Your task to perform on an android device: Open Reddit.com Image 0: 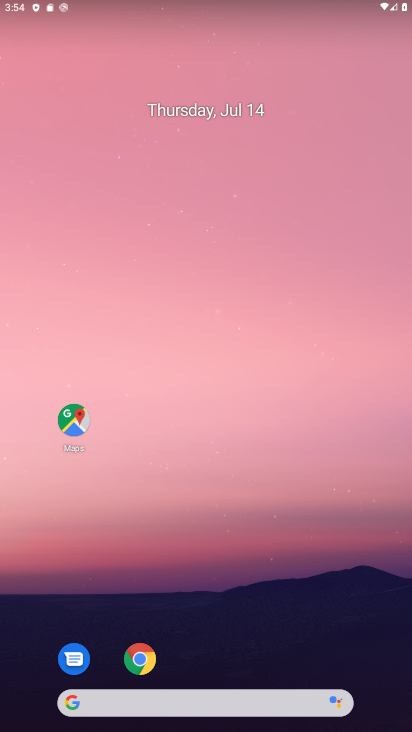
Step 0: press home button
Your task to perform on an android device: Open Reddit.com Image 1: 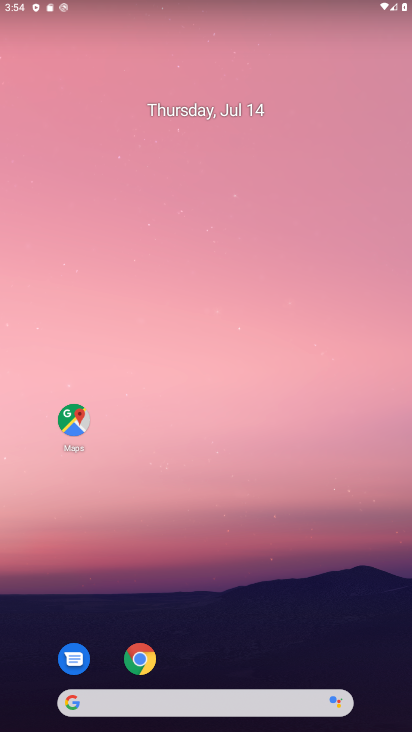
Step 1: drag from (244, 710) to (140, 203)
Your task to perform on an android device: Open Reddit.com Image 2: 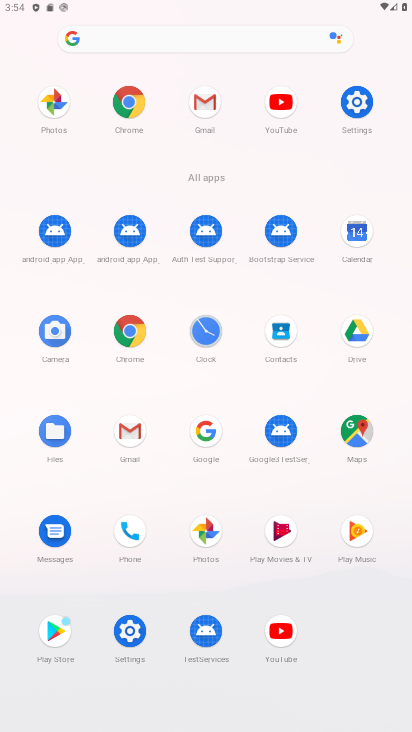
Step 2: click (124, 105)
Your task to perform on an android device: Open Reddit.com Image 3: 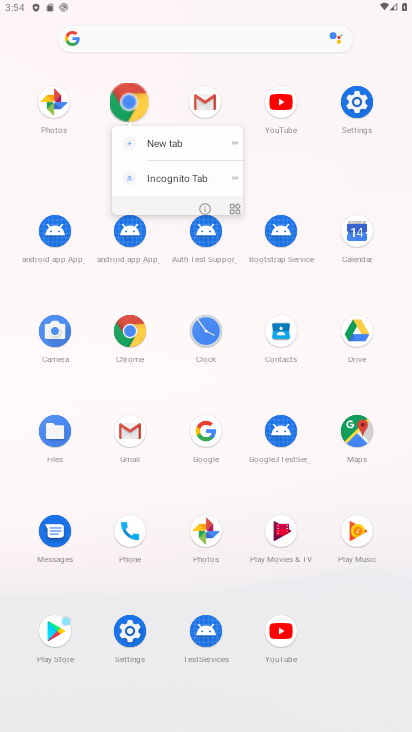
Step 3: click (129, 108)
Your task to perform on an android device: Open Reddit.com Image 4: 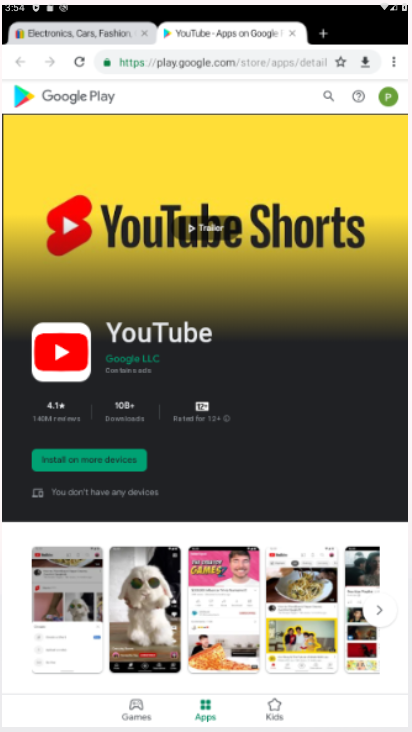
Step 4: click (130, 111)
Your task to perform on an android device: Open Reddit.com Image 5: 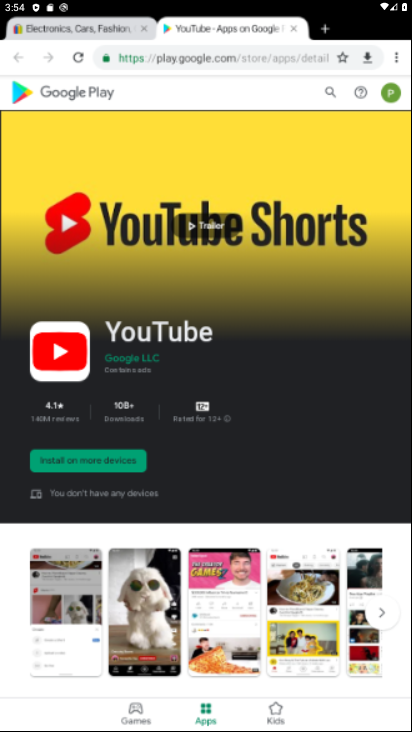
Step 5: click (130, 111)
Your task to perform on an android device: Open Reddit.com Image 6: 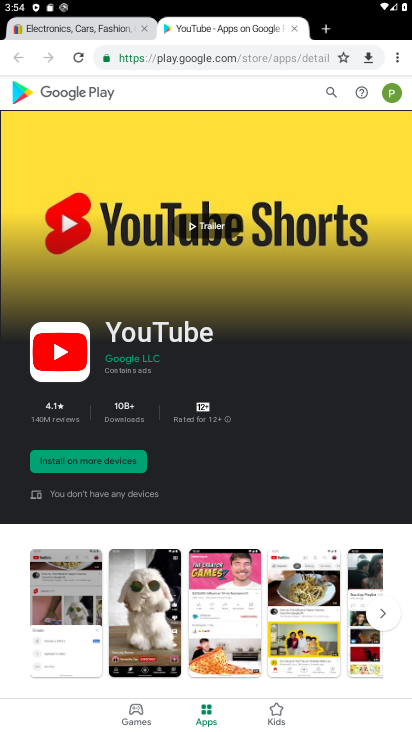
Step 6: drag from (396, 49) to (269, 54)
Your task to perform on an android device: Open Reddit.com Image 7: 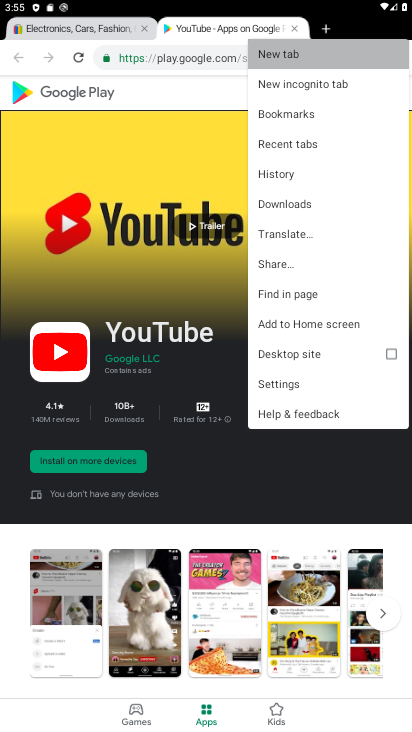
Step 7: click (269, 54)
Your task to perform on an android device: Open Reddit.com Image 8: 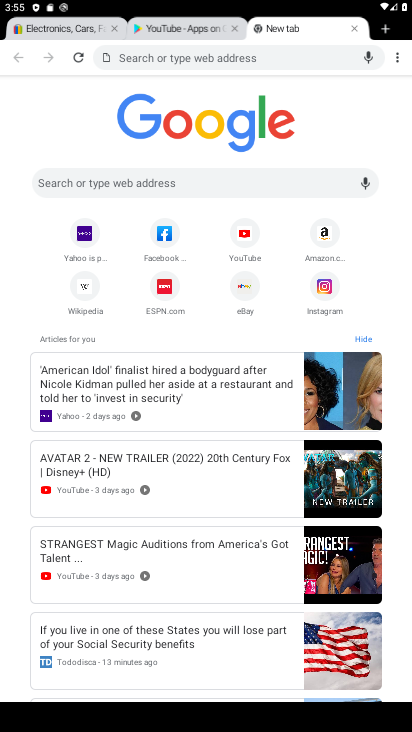
Step 8: click (53, 183)
Your task to perform on an android device: Open Reddit.com Image 9: 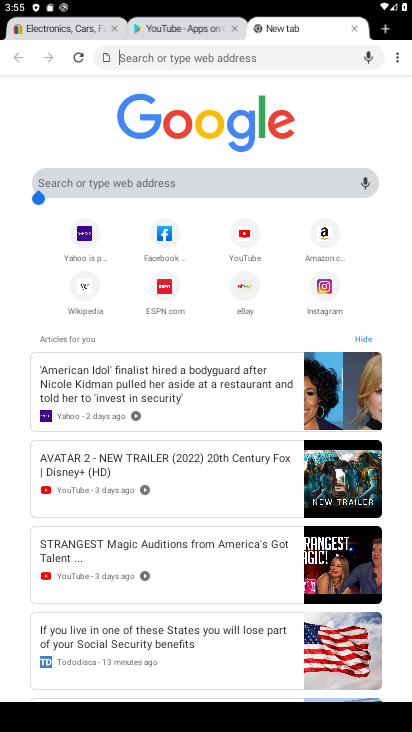
Step 9: click (77, 186)
Your task to perform on an android device: Open Reddit.com Image 10: 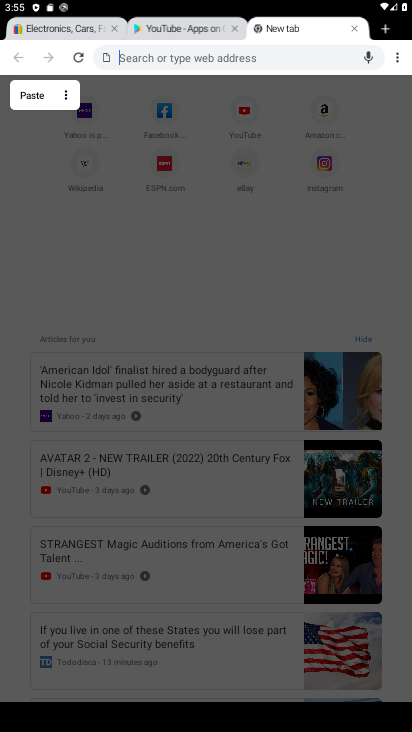
Step 10: type "reddit.com"
Your task to perform on an android device: Open Reddit.com Image 11: 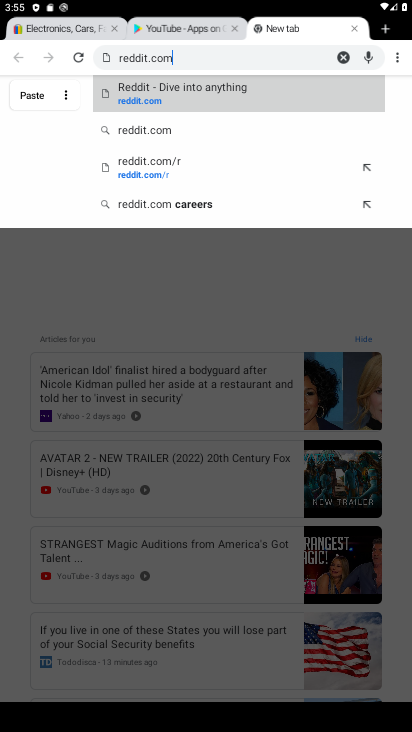
Step 11: click (152, 100)
Your task to perform on an android device: Open Reddit.com Image 12: 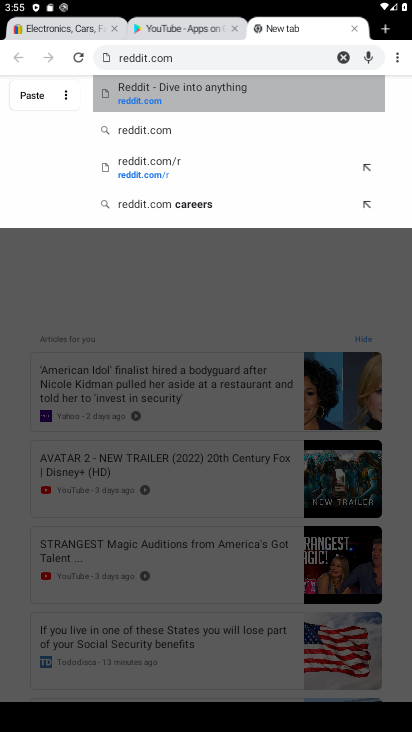
Step 12: click (152, 98)
Your task to perform on an android device: Open Reddit.com Image 13: 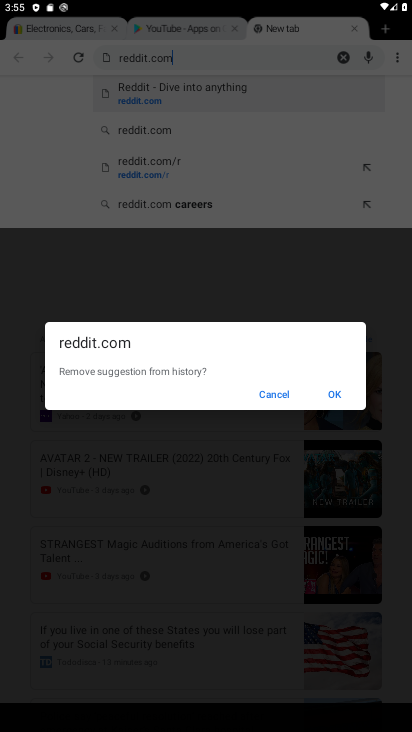
Step 13: click (152, 98)
Your task to perform on an android device: Open Reddit.com Image 14: 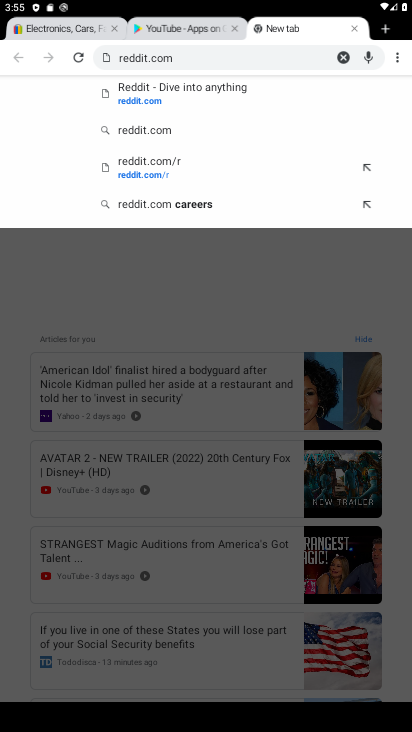
Step 14: click (139, 93)
Your task to perform on an android device: Open Reddit.com Image 15: 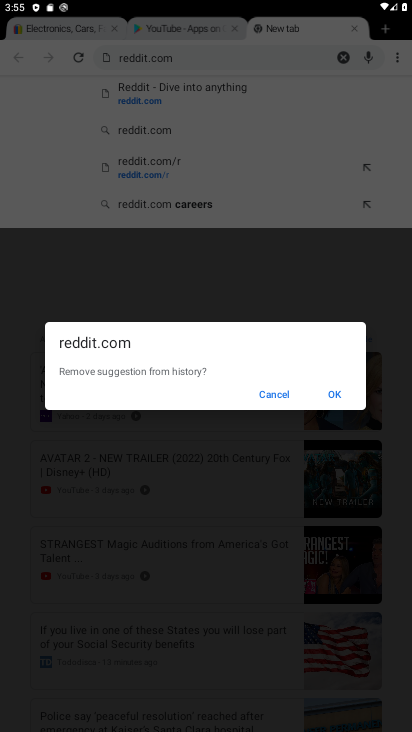
Step 15: click (265, 393)
Your task to perform on an android device: Open Reddit.com Image 16: 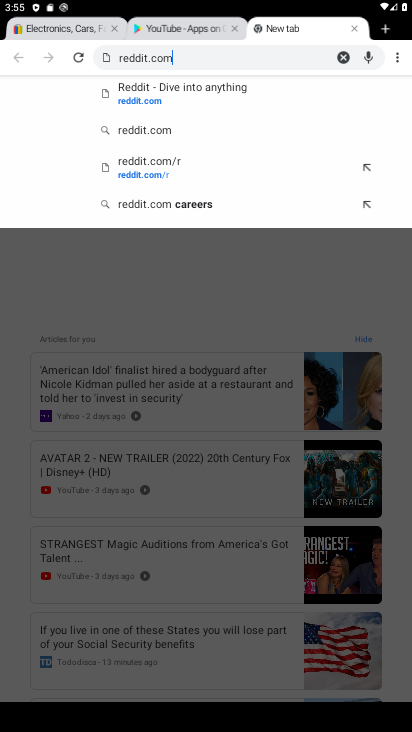
Step 16: task complete